Your task to perform on an android device: toggle improve location accuracy Image 0: 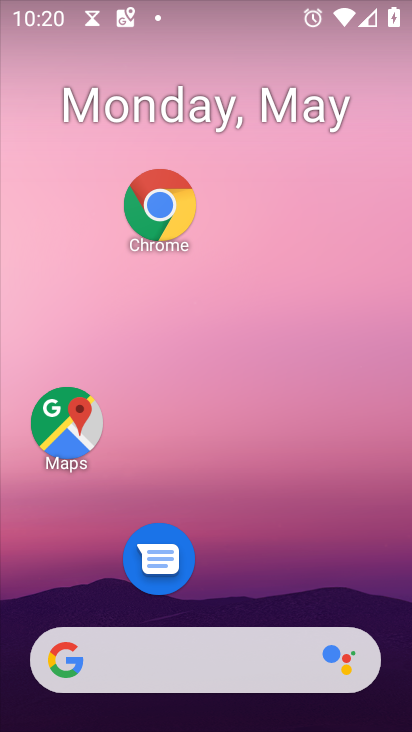
Step 0: click (189, 77)
Your task to perform on an android device: toggle improve location accuracy Image 1: 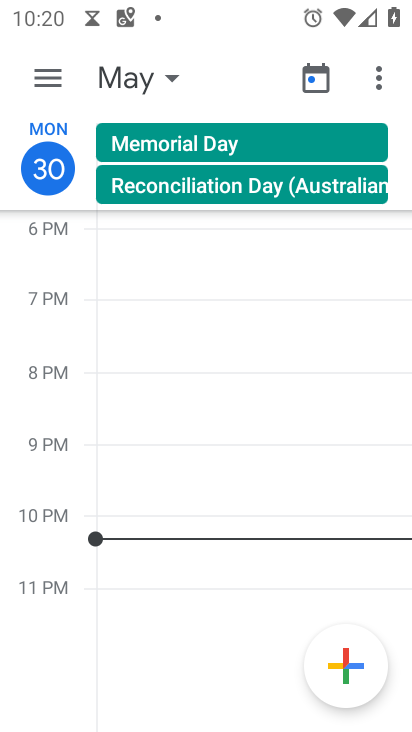
Step 1: press back button
Your task to perform on an android device: toggle improve location accuracy Image 2: 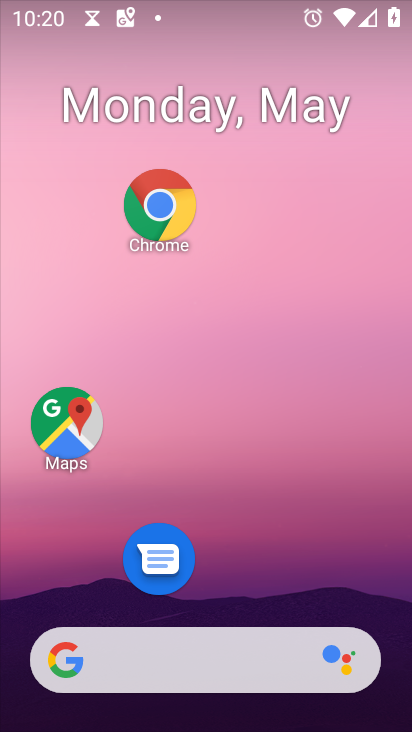
Step 2: drag from (228, 717) to (169, 5)
Your task to perform on an android device: toggle improve location accuracy Image 3: 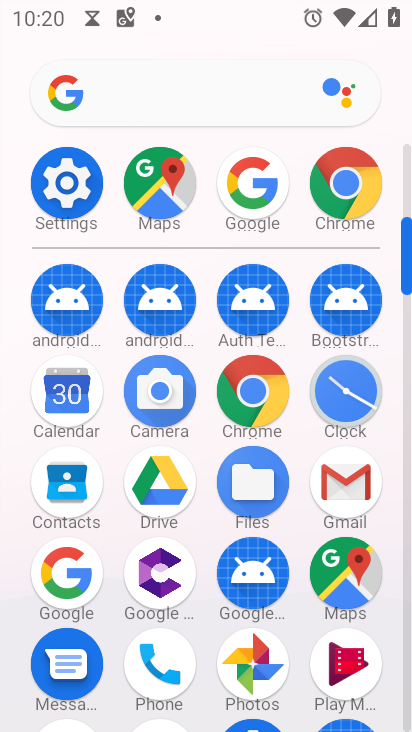
Step 3: click (58, 196)
Your task to perform on an android device: toggle improve location accuracy Image 4: 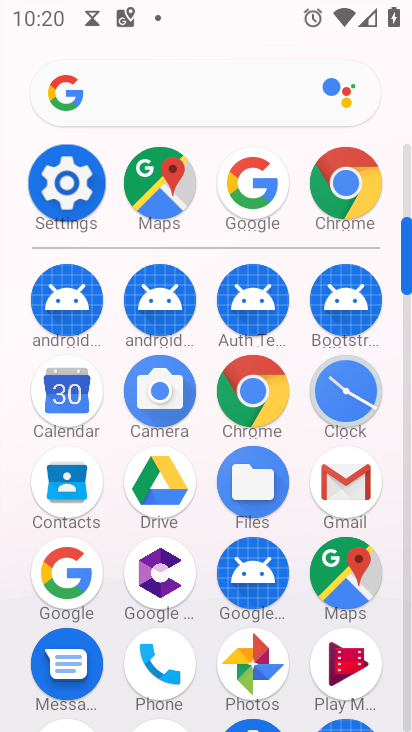
Step 4: click (59, 193)
Your task to perform on an android device: toggle improve location accuracy Image 5: 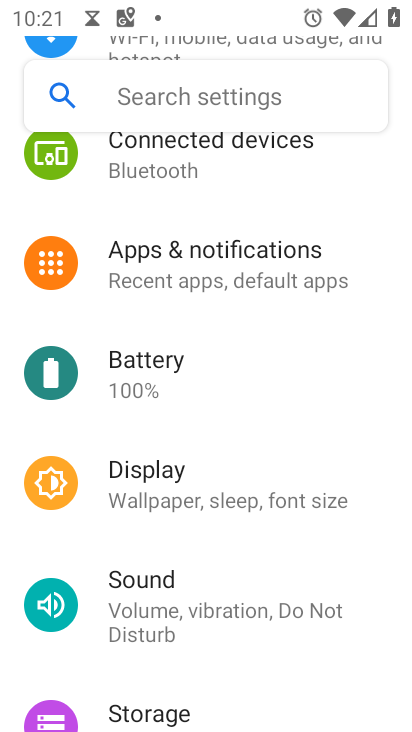
Step 5: drag from (232, 511) to (243, 214)
Your task to perform on an android device: toggle improve location accuracy Image 6: 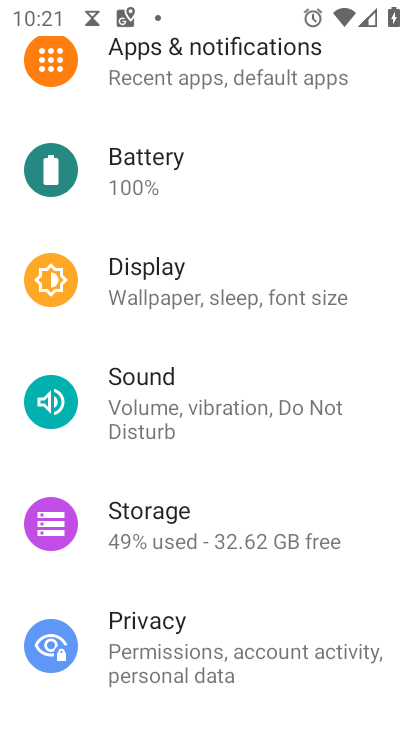
Step 6: drag from (258, 397) to (250, 93)
Your task to perform on an android device: toggle improve location accuracy Image 7: 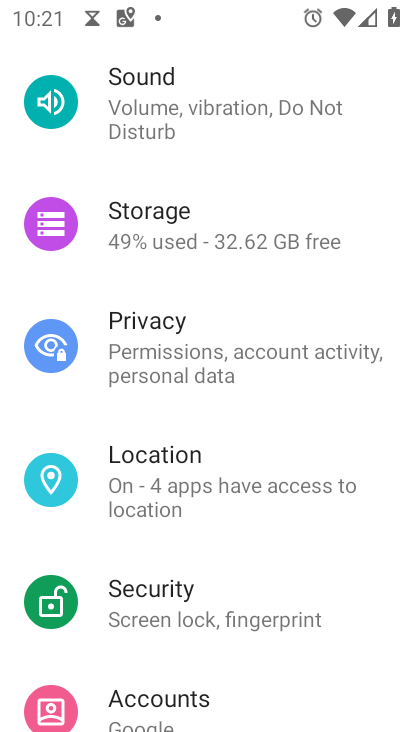
Step 7: click (167, 491)
Your task to perform on an android device: toggle improve location accuracy Image 8: 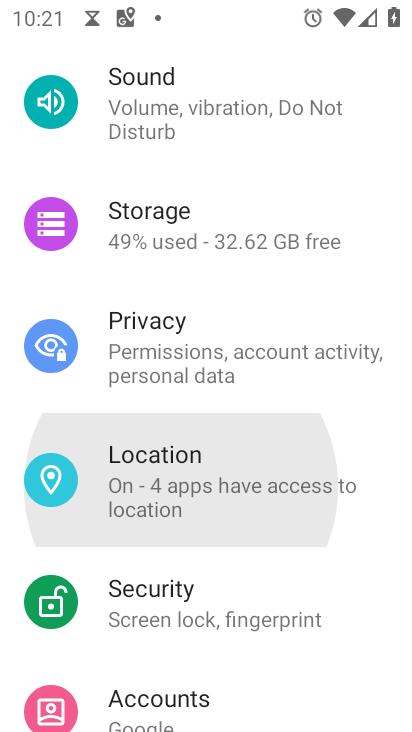
Step 8: click (167, 491)
Your task to perform on an android device: toggle improve location accuracy Image 9: 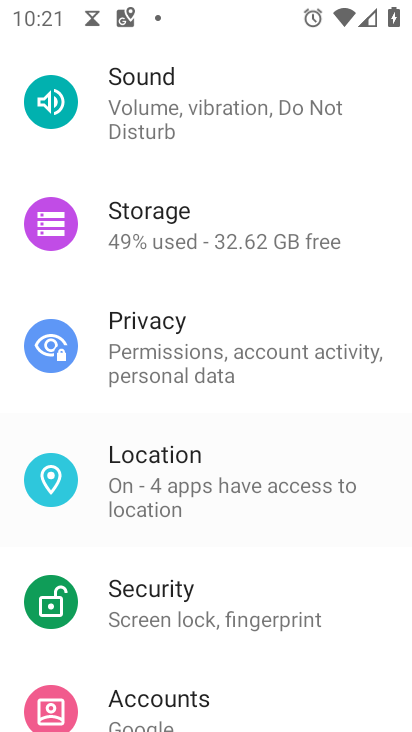
Step 9: click (167, 491)
Your task to perform on an android device: toggle improve location accuracy Image 10: 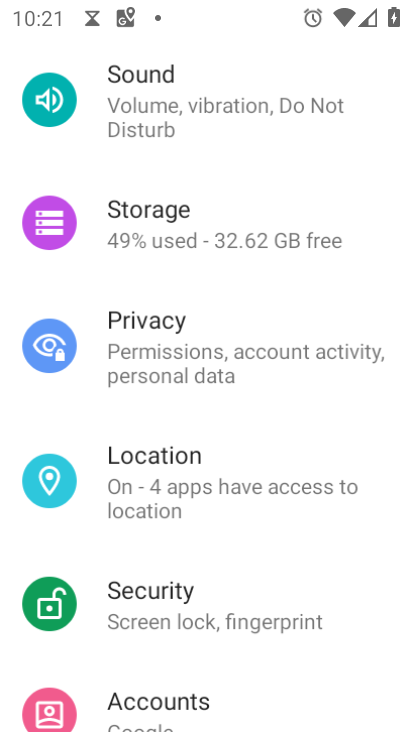
Step 10: click (168, 493)
Your task to perform on an android device: toggle improve location accuracy Image 11: 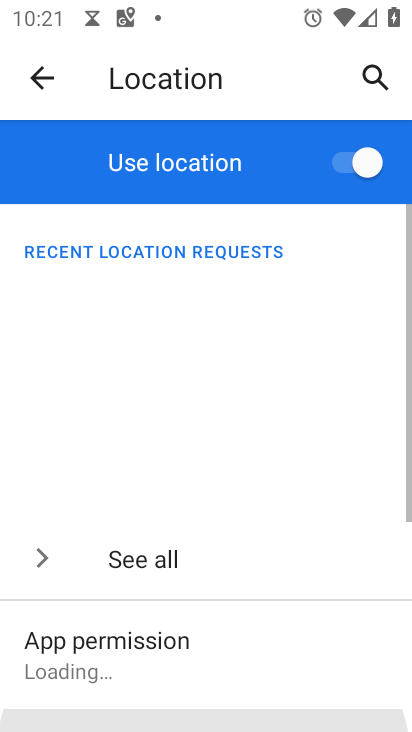
Step 11: click (171, 495)
Your task to perform on an android device: toggle improve location accuracy Image 12: 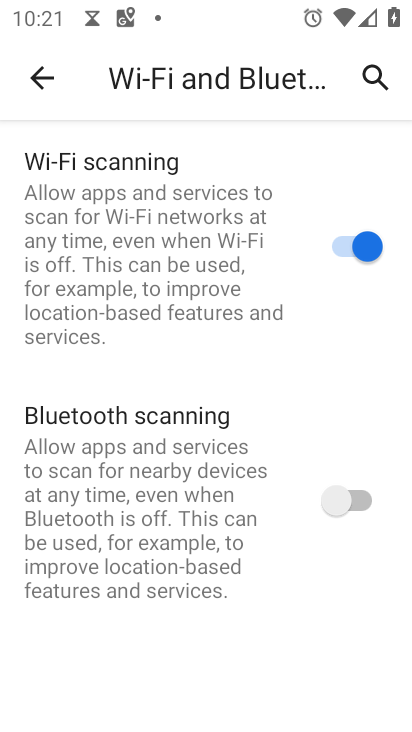
Step 12: click (47, 67)
Your task to perform on an android device: toggle improve location accuracy Image 13: 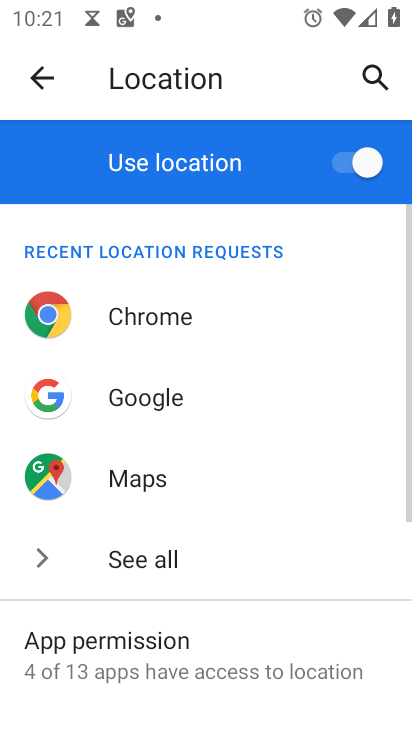
Step 13: drag from (200, 447) to (175, 131)
Your task to perform on an android device: toggle improve location accuracy Image 14: 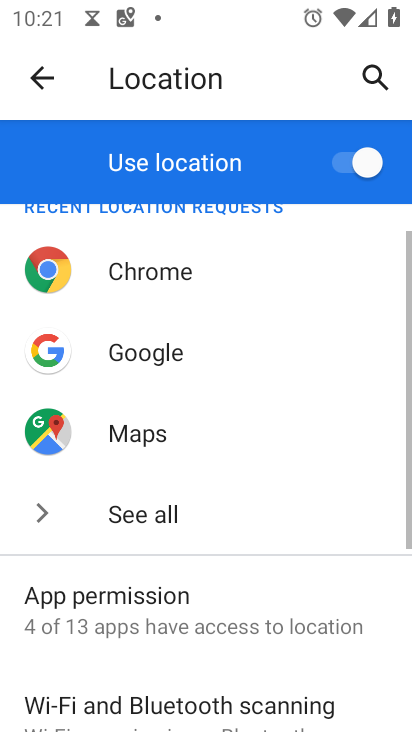
Step 14: drag from (233, 437) to (276, 20)
Your task to perform on an android device: toggle improve location accuracy Image 15: 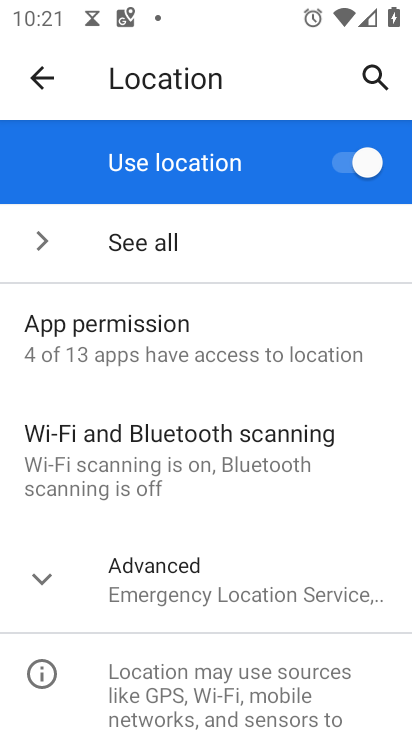
Step 15: click (220, 584)
Your task to perform on an android device: toggle improve location accuracy Image 16: 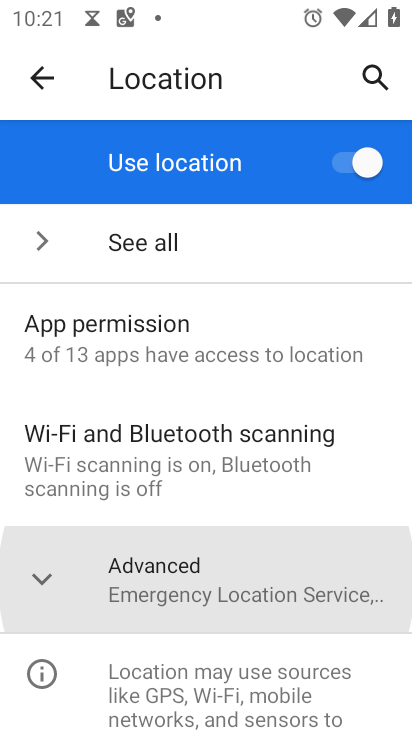
Step 16: click (214, 585)
Your task to perform on an android device: toggle improve location accuracy Image 17: 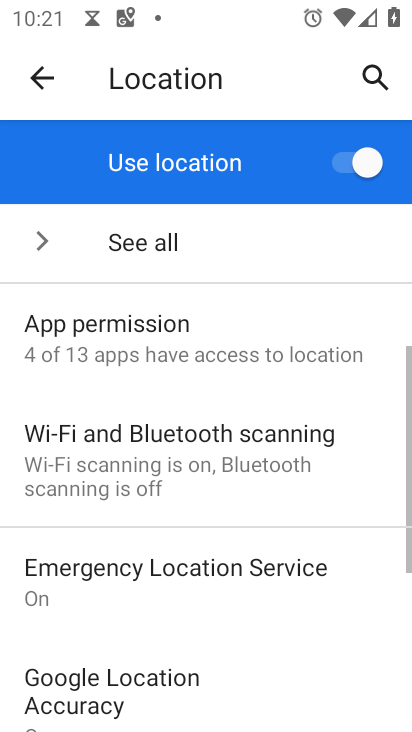
Step 17: drag from (215, 587) to (230, 276)
Your task to perform on an android device: toggle improve location accuracy Image 18: 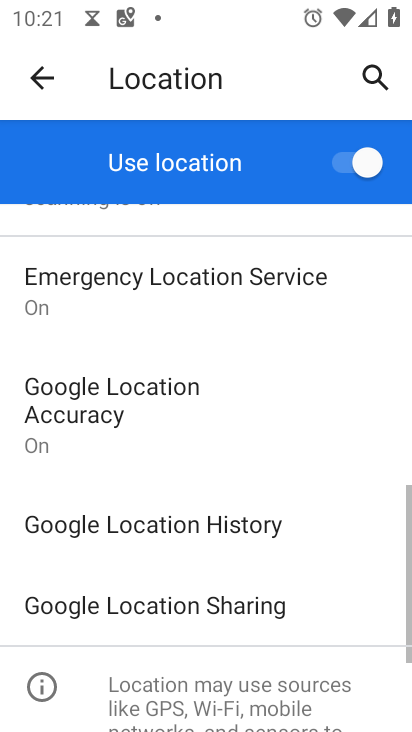
Step 18: drag from (277, 507) to (335, 158)
Your task to perform on an android device: toggle improve location accuracy Image 19: 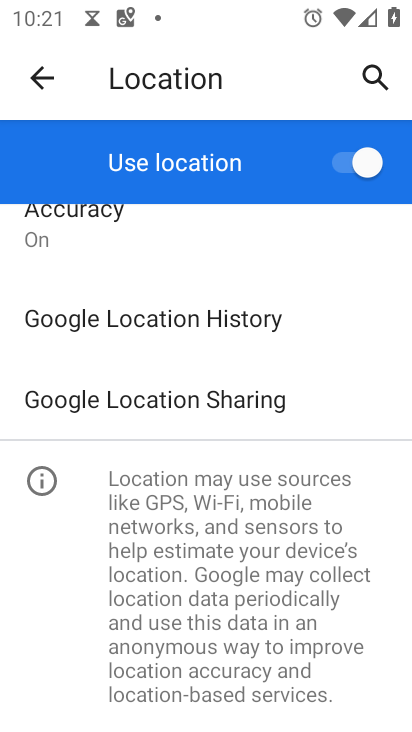
Step 19: click (92, 217)
Your task to perform on an android device: toggle improve location accuracy Image 20: 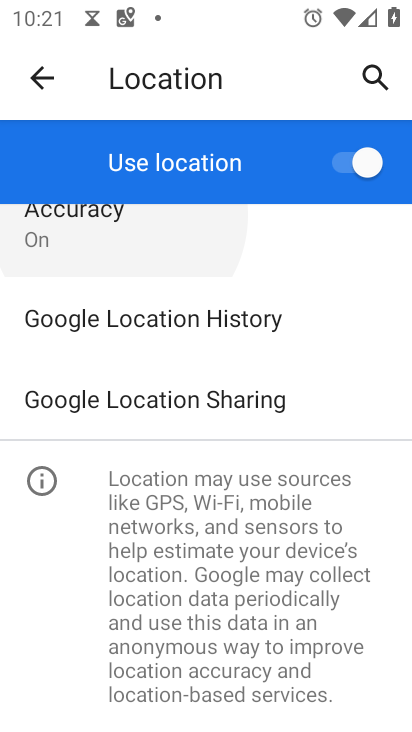
Step 20: click (91, 218)
Your task to perform on an android device: toggle improve location accuracy Image 21: 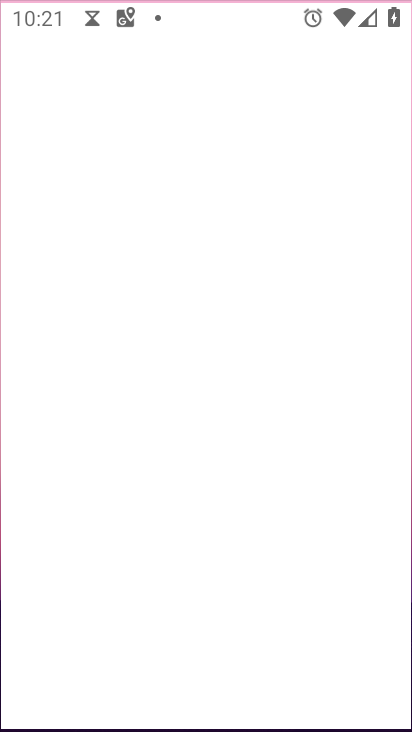
Step 21: click (92, 227)
Your task to perform on an android device: toggle improve location accuracy Image 22: 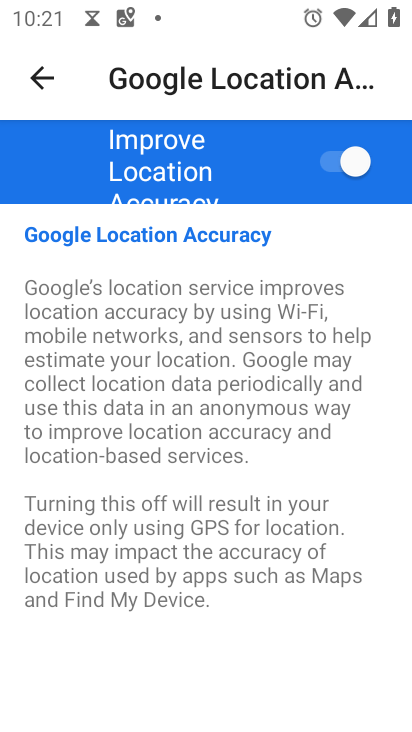
Step 22: task complete